Your task to perform on an android device: turn pop-ups on in chrome Image 0: 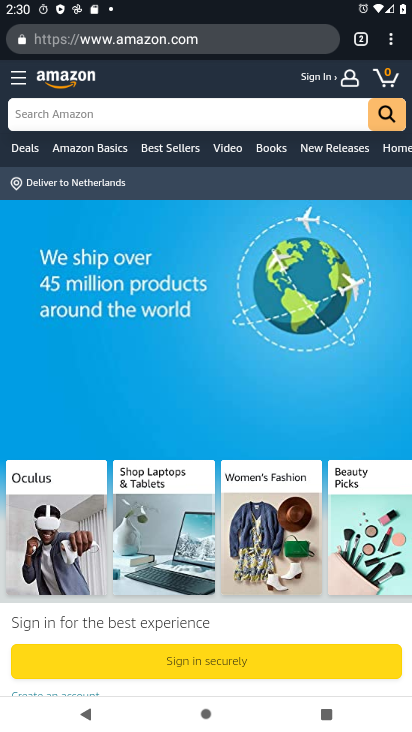
Step 0: press home button
Your task to perform on an android device: turn pop-ups on in chrome Image 1: 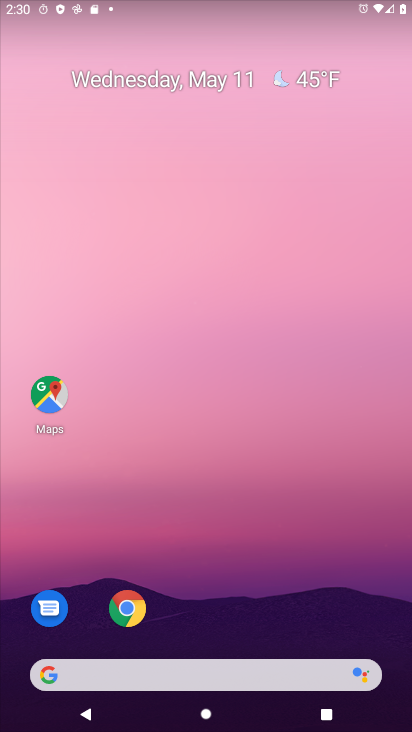
Step 1: click (128, 607)
Your task to perform on an android device: turn pop-ups on in chrome Image 2: 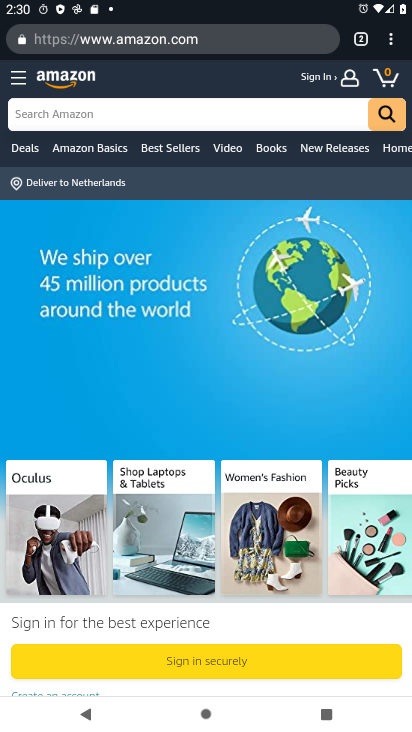
Step 2: click (387, 42)
Your task to perform on an android device: turn pop-ups on in chrome Image 3: 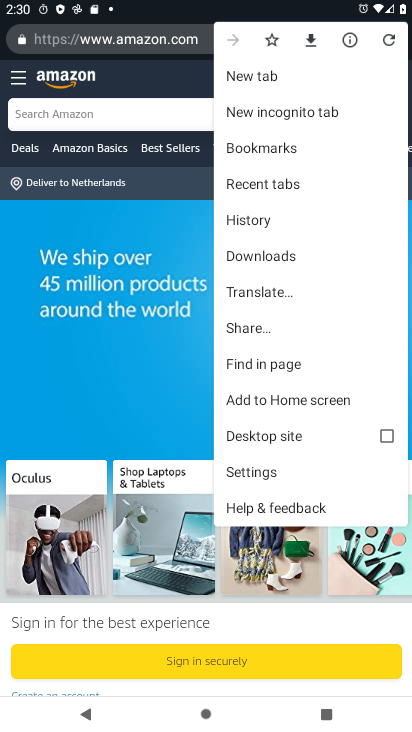
Step 3: click (262, 465)
Your task to perform on an android device: turn pop-ups on in chrome Image 4: 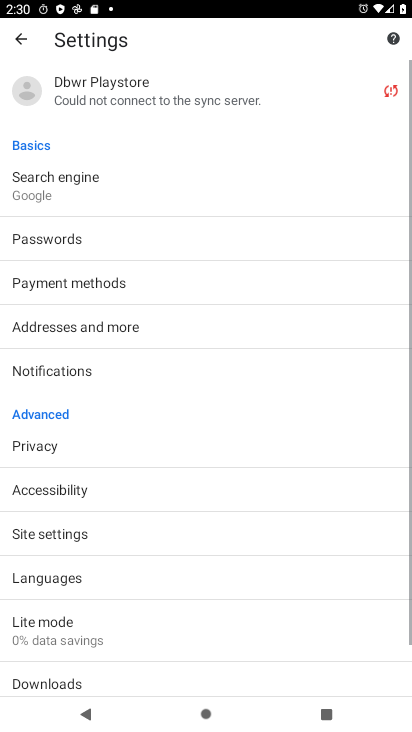
Step 4: drag from (210, 592) to (202, 262)
Your task to perform on an android device: turn pop-ups on in chrome Image 5: 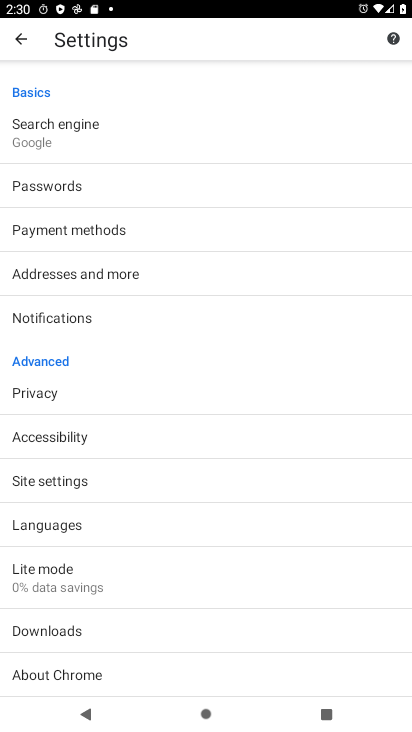
Step 5: click (76, 480)
Your task to perform on an android device: turn pop-ups on in chrome Image 6: 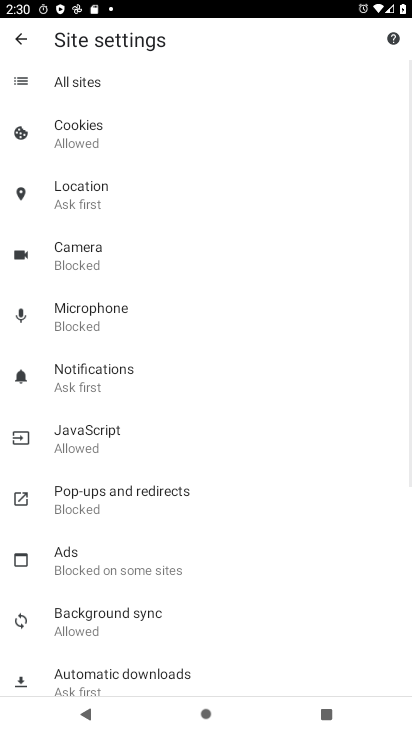
Step 6: drag from (189, 564) to (159, 263)
Your task to perform on an android device: turn pop-ups on in chrome Image 7: 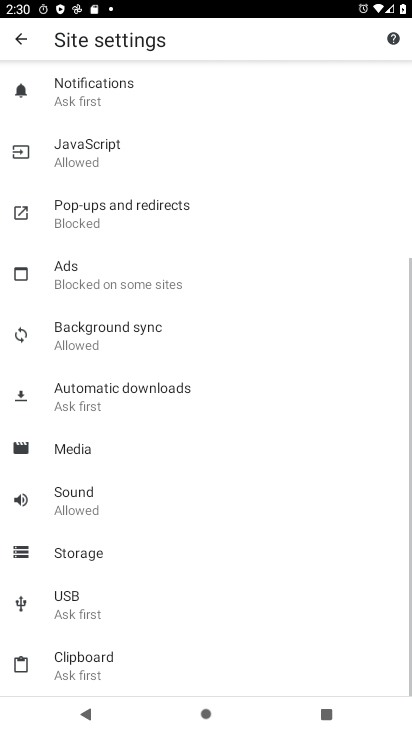
Step 7: click (123, 207)
Your task to perform on an android device: turn pop-ups on in chrome Image 8: 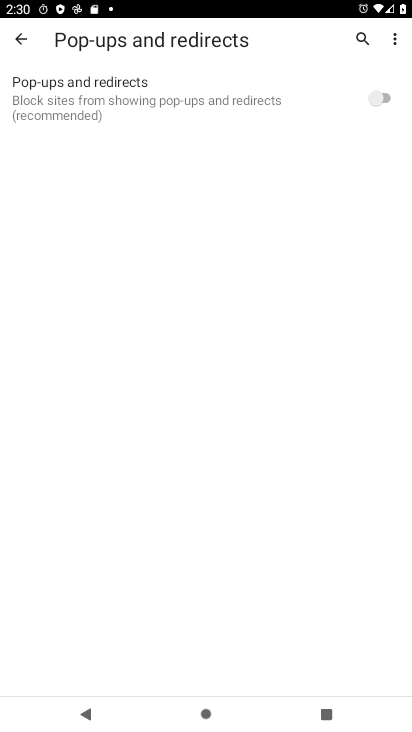
Step 8: click (379, 105)
Your task to perform on an android device: turn pop-ups on in chrome Image 9: 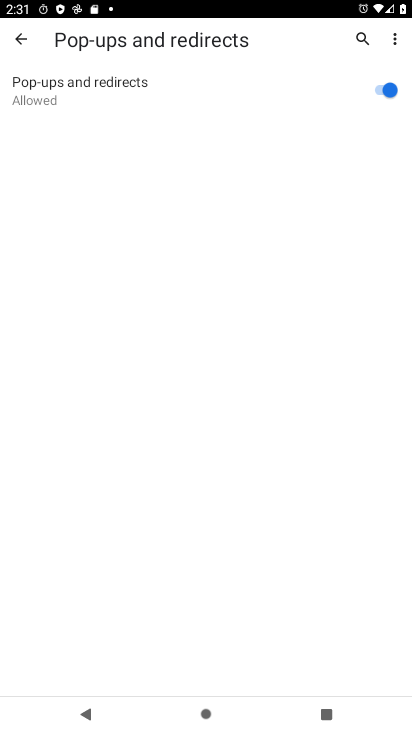
Step 9: task complete